Your task to perform on an android device: snooze an email in the gmail app Image 0: 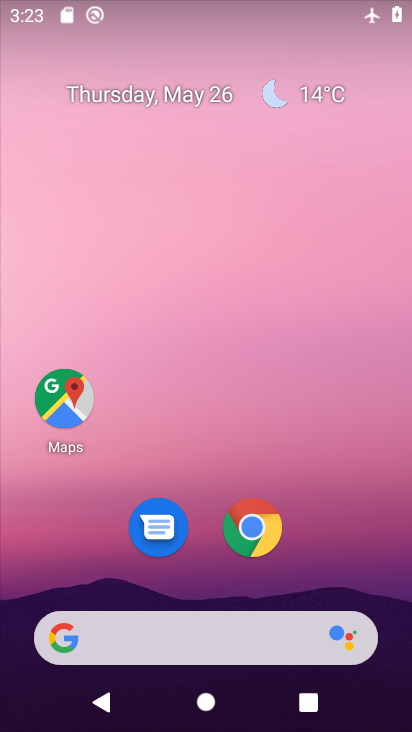
Step 0: drag from (336, 568) to (252, 168)
Your task to perform on an android device: snooze an email in the gmail app Image 1: 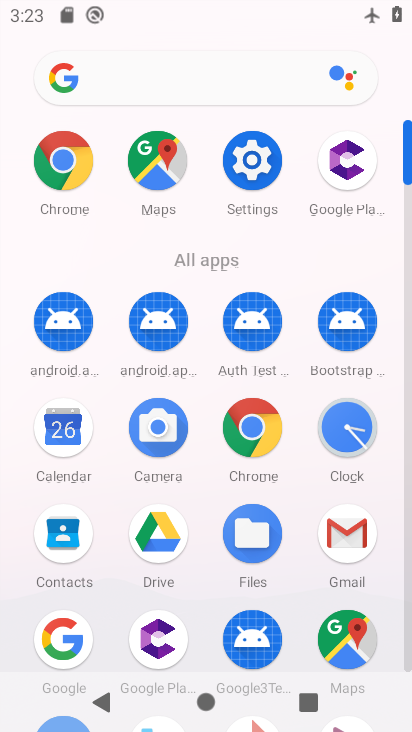
Step 1: click (352, 546)
Your task to perform on an android device: snooze an email in the gmail app Image 2: 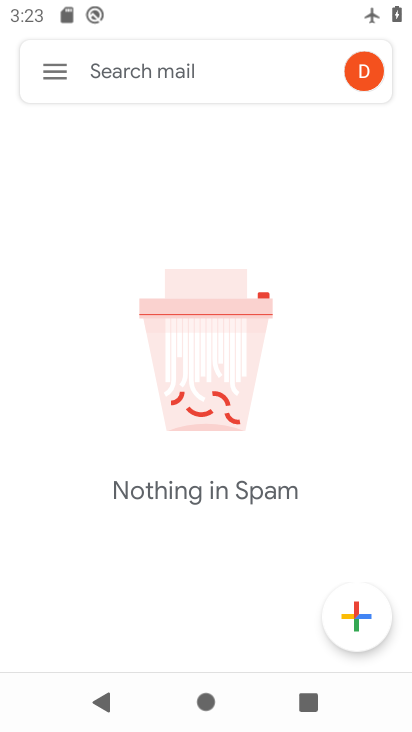
Step 2: click (61, 74)
Your task to perform on an android device: snooze an email in the gmail app Image 3: 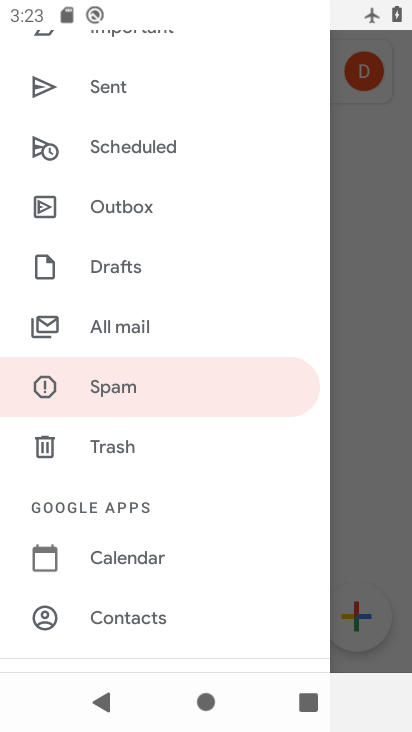
Step 3: drag from (153, 130) to (182, 635)
Your task to perform on an android device: snooze an email in the gmail app Image 4: 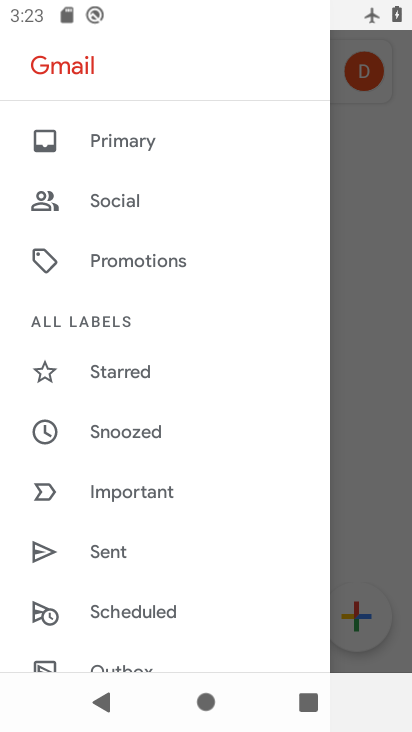
Step 4: drag from (147, 588) to (98, 277)
Your task to perform on an android device: snooze an email in the gmail app Image 5: 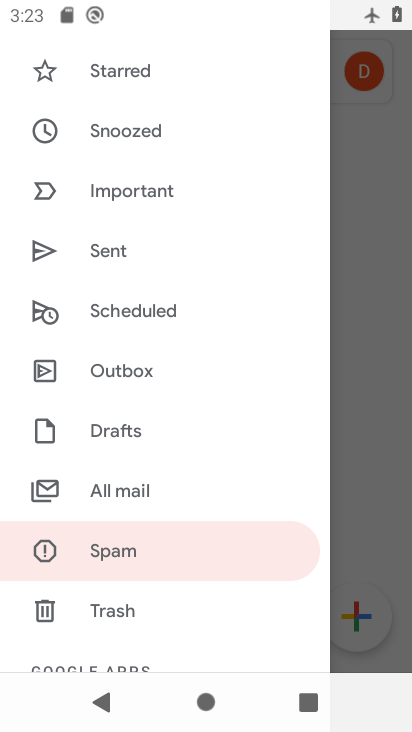
Step 5: click (130, 497)
Your task to perform on an android device: snooze an email in the gmail app Image 6: 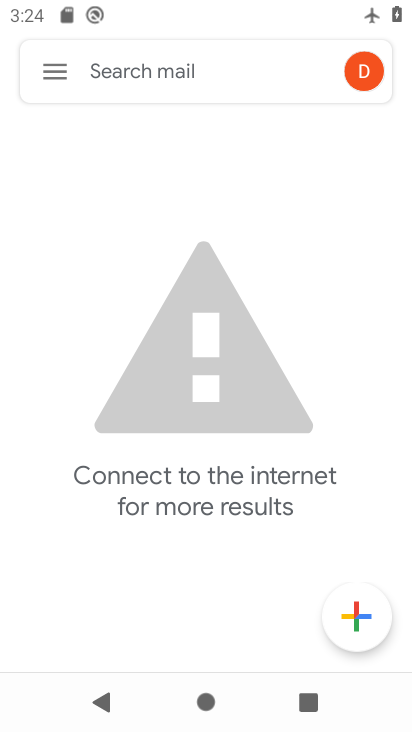
Step 6: task complete